Your task to perform on an android device: make emails show in primary in the gmail app Image 0: 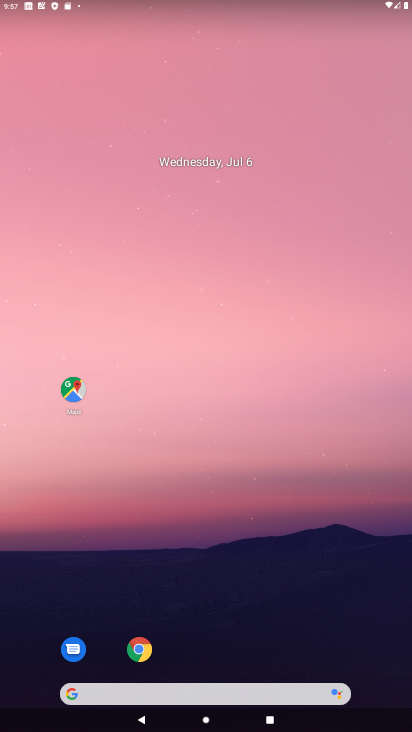
Step 0: drag from (216, 692) to (281, 125)
Your task to perform on an android device: make emails show in primary in the gmail app Image 1: 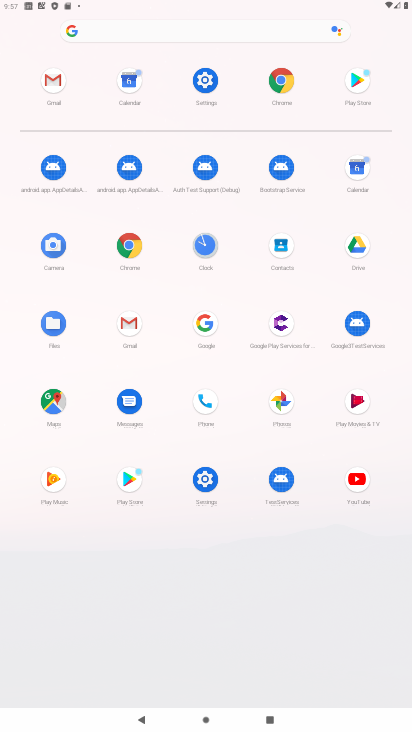
Step 1: click (44, 92)
Your task to perform on an android device: make emails show in primary in the gmail app Image 2: 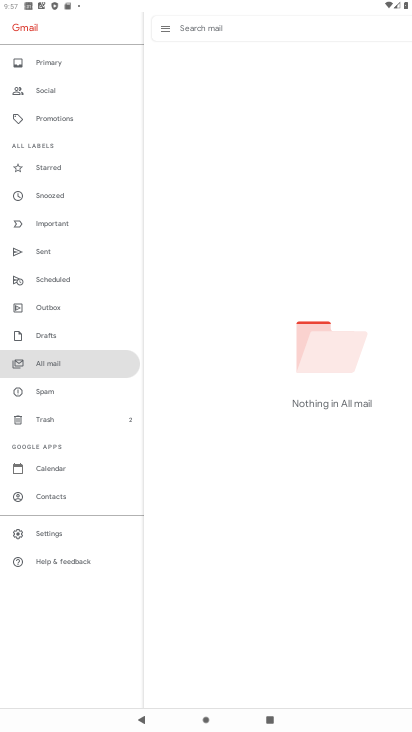
Step 2: click (76, 534)
Your task to perform on an android device: make emails show in primary in the gmail app Image 3: 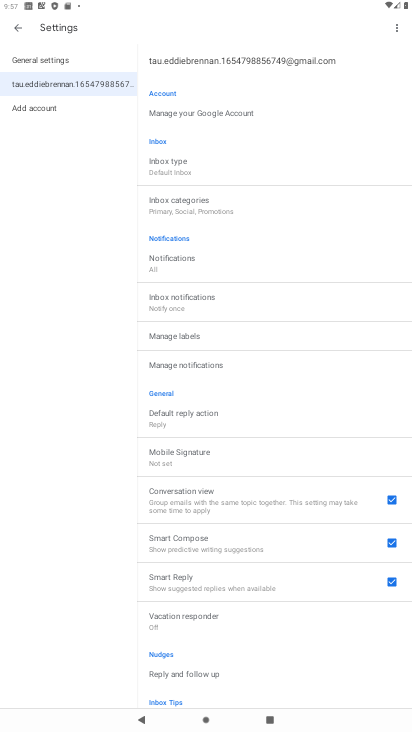
Step 3: click (163, 174)
Your task to perform on an android device: make emails show in primary in the gmail app Image 4: 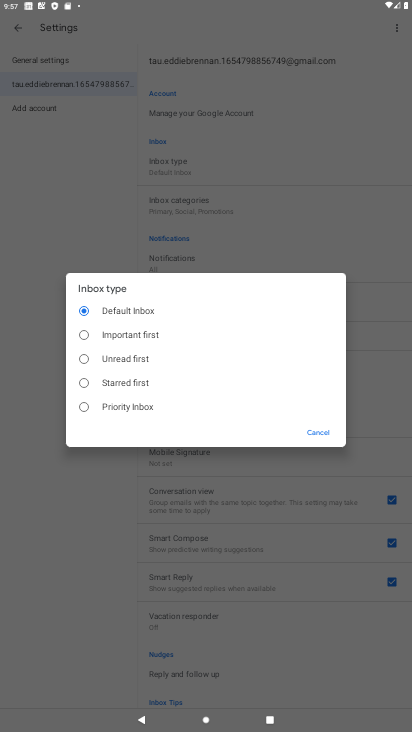
Step 4: click (144, 315)
Your task to perform on an android device: make emails show in primary in the gmail app Image 5: 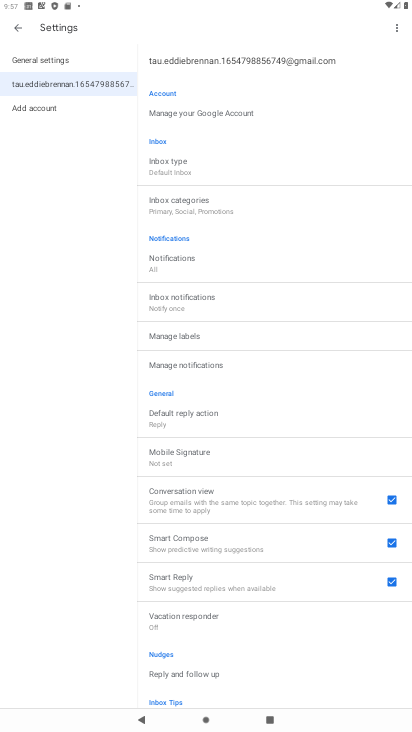
Step 5: click (272, 201)
Your task to perform on an android device: make emails show in primary in the gmail app Image 6: 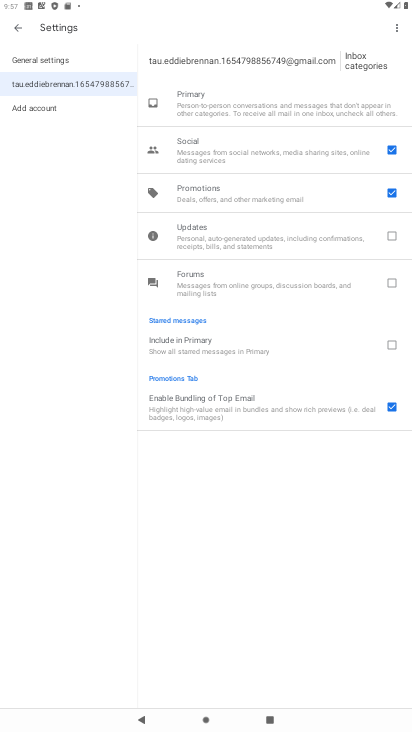
Step 6: click (388, 191)
Your task to perform on an android device: make emails show in primary in the gmail app Image 7: 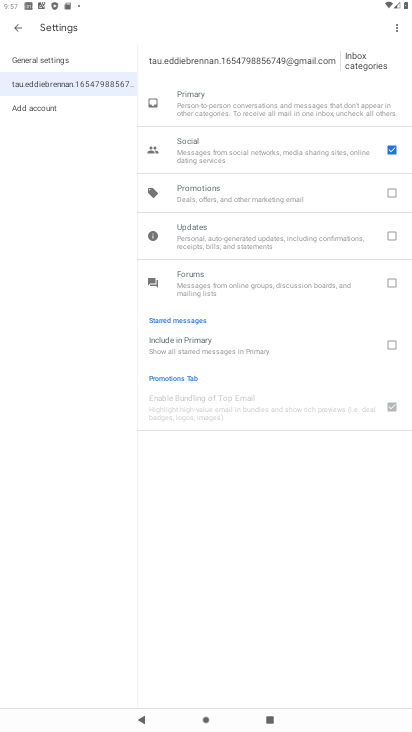
Step 7: click (382, 143)
Your task to perform on an android device: make emails show in primary in the gmail app Image 8: 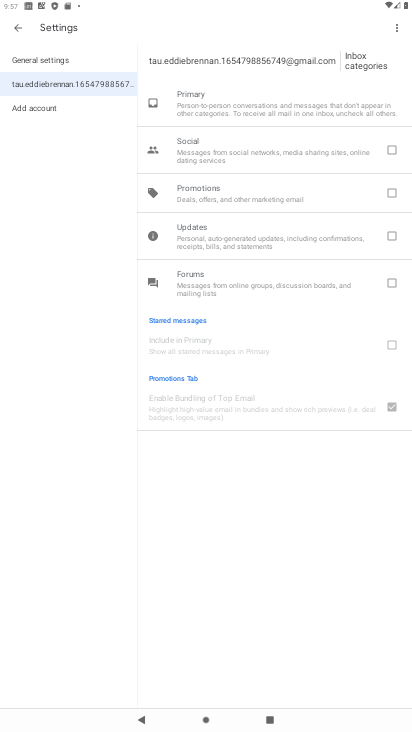
Step 8: task complete